Your task to perform on an android device: Open settings Image 0: 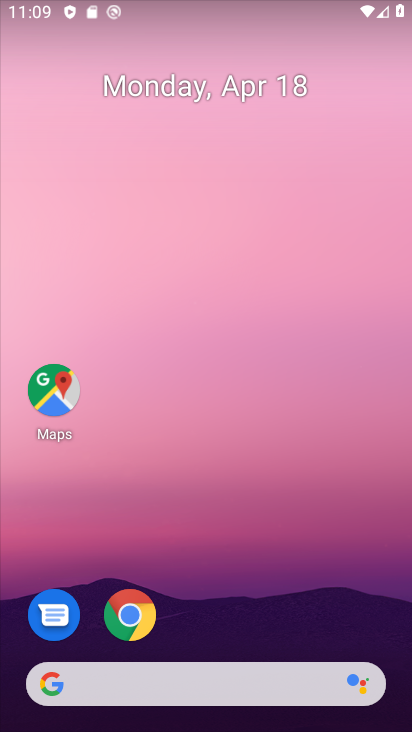
Step 0: drag from (205, 322) to (205, 179)
Your task to perform on an android device: Open settings Image 1: 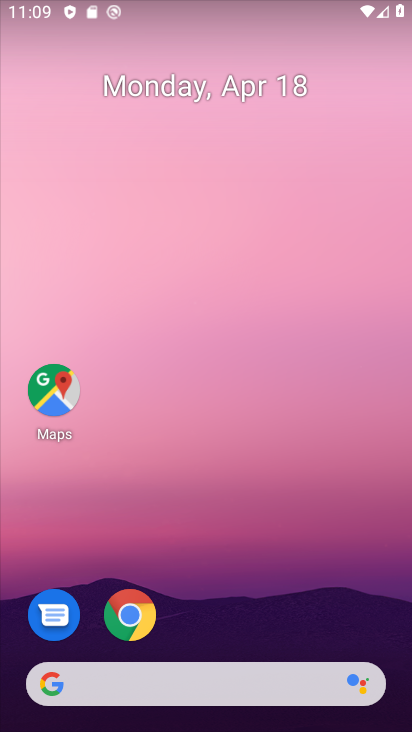
Step 1: drag from (210, 658) to (227, 217)
Your task to perform on an android device: Open settings Image 2: 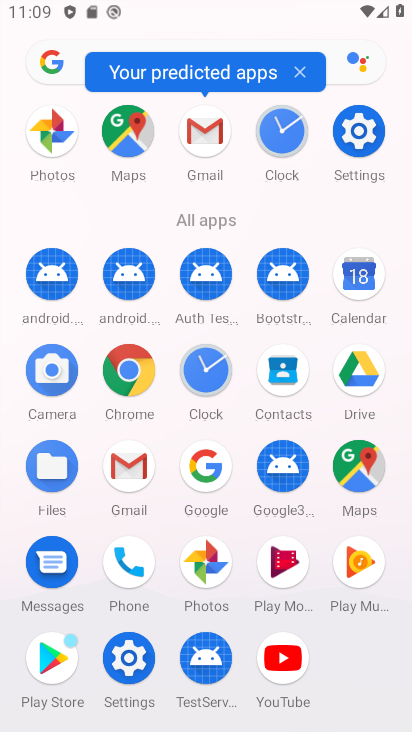
Step 2: click (353, 143)
Your task to perform on an android device: Open settings Image 3: 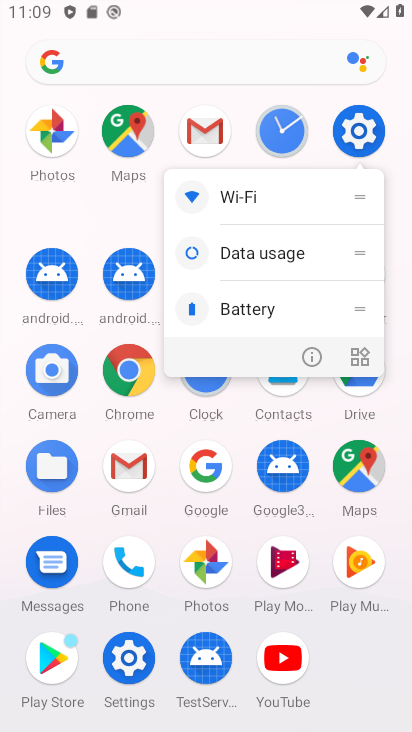
Step 3: click (353, 143)
Your task to perform on an android device: Open settings Image 4: 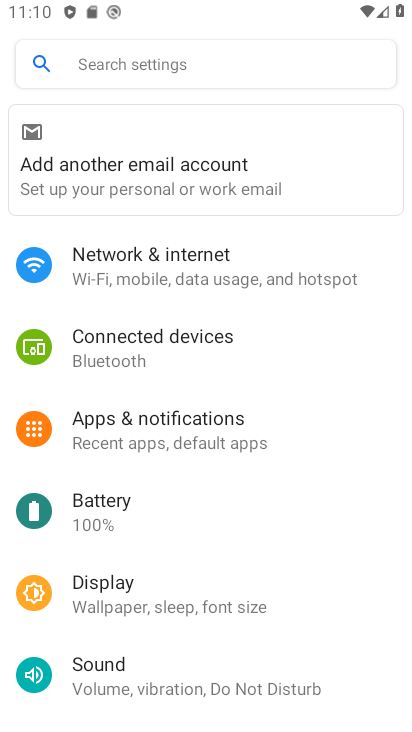
Step 4: task complete